Your task to perform on an android device: Do I have any events today? Image 0: 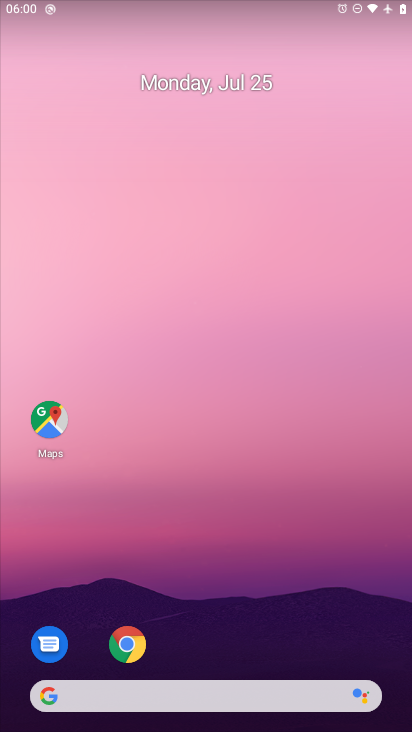
Step 0: press home button
Your task to perform on an android device: Do I have any events today? Image 1: 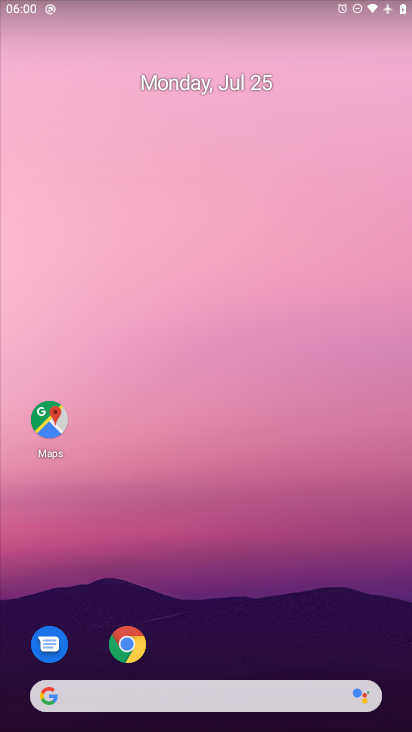
Step 1: drag from (240, 638) to (264, 2)
Your task to perform on an android device: Do I have any events today? Image 2: 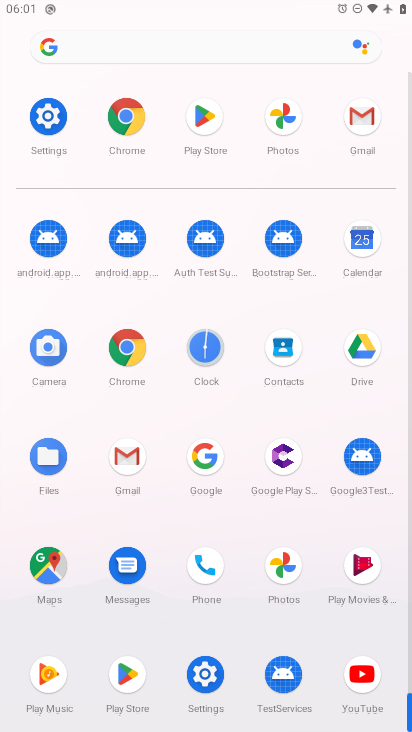
Step 2: click (361, 238)
Your task to perform on an android device: Do I have any events today? Image 3: 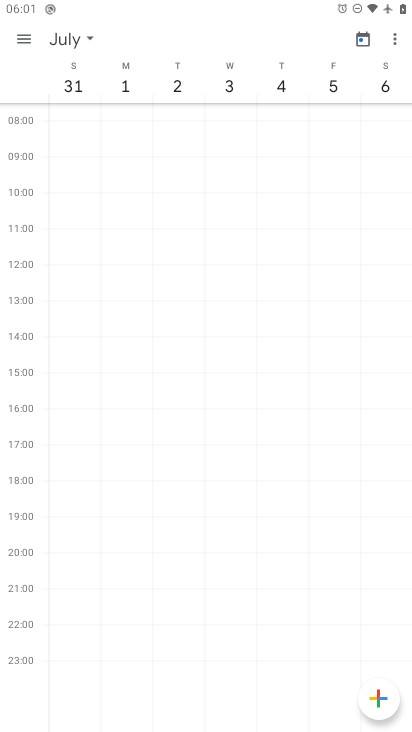
Step 3: click (53, 48)
Your task to perform on an android device: Do I have any events today? Image 4: 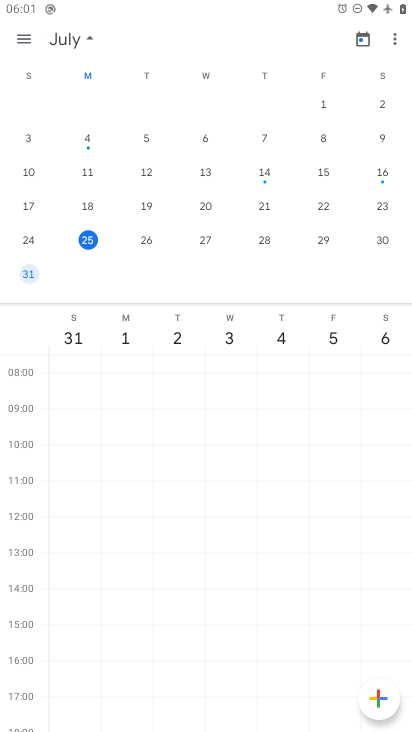
Step 4: click (89, 242)
Your task to perform on an android device: Do I have any events today? Image 5: 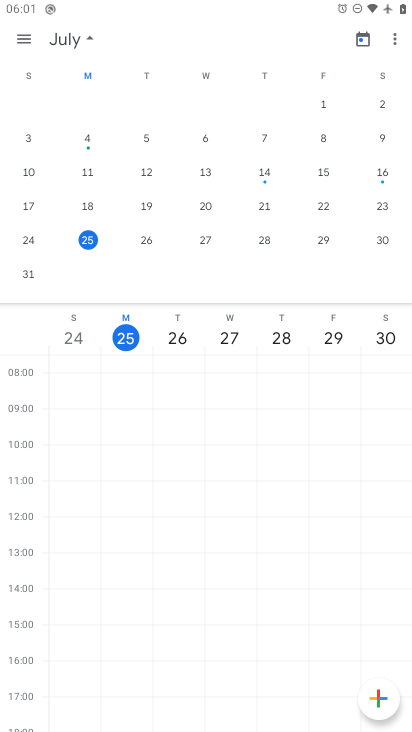
Step 5: task complete